Your task to perform on an android device: Search for "razer nari" on target.com, select the first entry, and add it to the cart. Image 0: 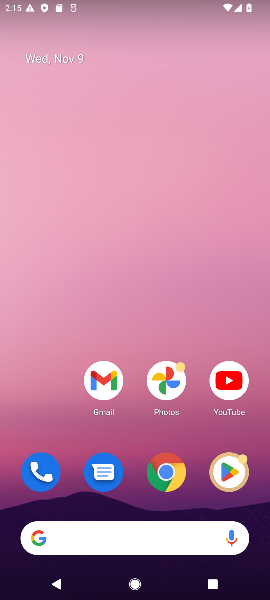
Step 0: click (99, 525)
Your task to perform on an android device: Search for "razer nari" on target.com, select the first entry, and add it to the cart. Image 1: 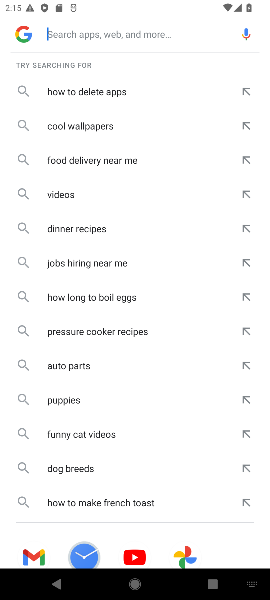
Step 1: type "target"
Your task to perform on an android device: Search for "razer nari" on target.com, select the first entry, and add it to the cart. Image 2: 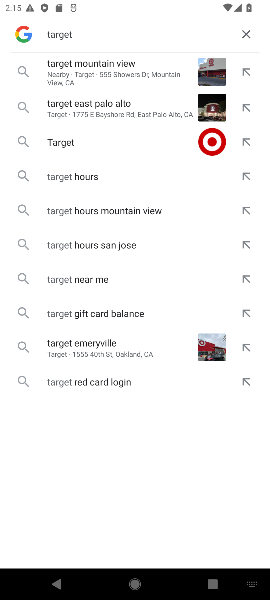
Step 2: click (56, 142)
Your task to perform on an android device: Search for "razer nari" on target.com, select the first entry, and add it to the cart. Image 3: 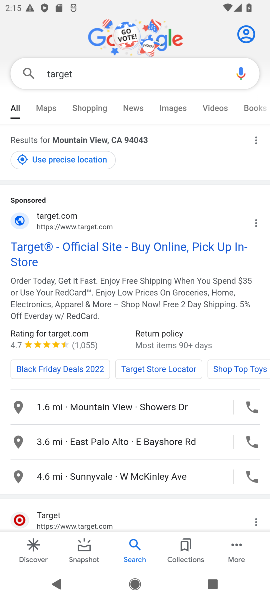
Step 3: click (60, 212)
Your task to perform on an android device: Search for "razer nari" on target.com, select the first entry, and add it to the cart. Image 4: 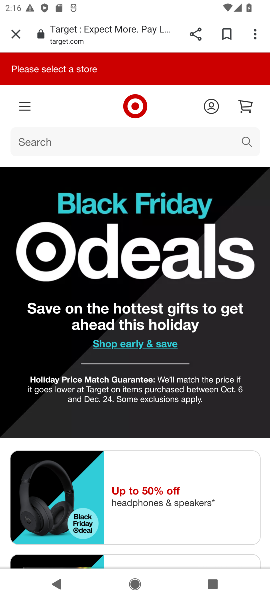
Step 4: click (59, 133)
Your task to perform on an android device: Search for "razer nari" on target.com, select the first entry, and add it to the cart. Image 5: 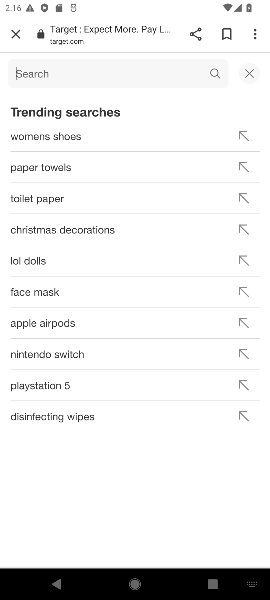
Step 5: type "razer nari"
Your task to perform on an android device: Search for "razer nari" on target.com, select the first entry, and add it to the cart. Image 6: 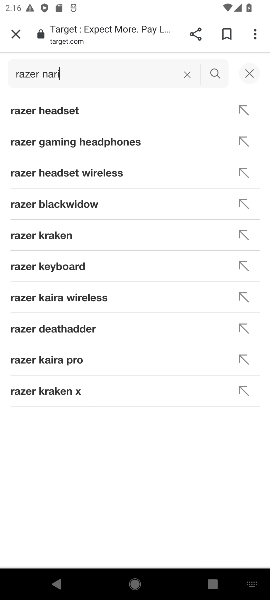
Step 6: click (216, 73)
Your task to perform on an android device: Search for "razer nari" on target.com, select the first entry, and add it to the cart. Image 7: 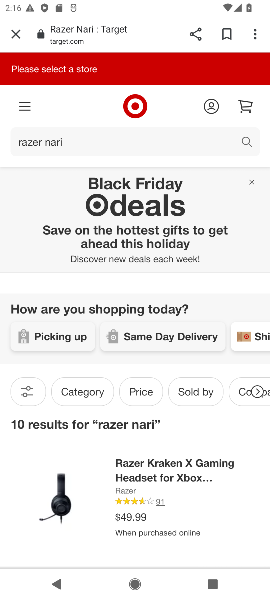
Step 7: click (170, 471)
Your task to perform on an android device: Search for "razer nari" on target.com, select the first entry, and add it to the cart. Image 8: 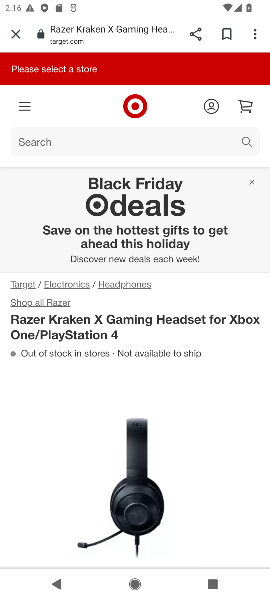
Step 8: drag from (170, 488) to (145, 293)
Your task to perform on an android device: Search for "razer nari" on target.com, select the first entry, and add it to the cart. Image 9: 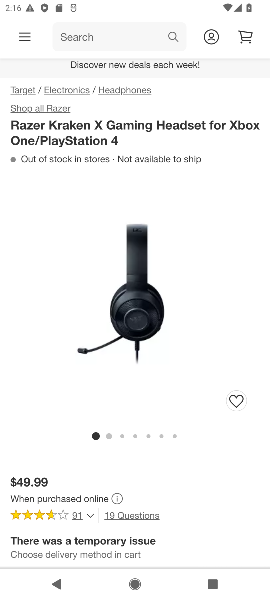
Step 9: drag from (187, 387) to (141, 122)
Your task to perform on an android device: Search for "razer nari" on target.com, select the first entry, and add it to the cart. Image 10: 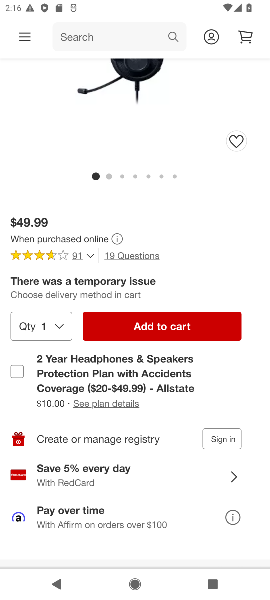
Step 10: click (157, 323)
Your task to perform on an android device: Search for "razer nari" on target.com, select the first entry, and add it to the cart. Image 11: 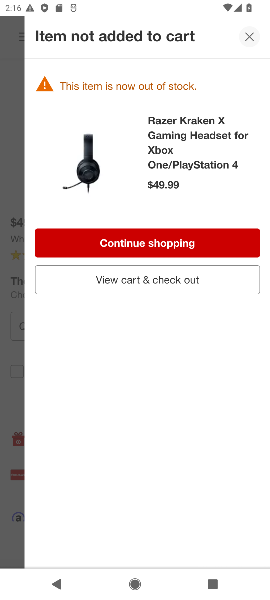
Step 11: task complete